Your task to perform on an android device: snooze an email in the gmail app Image 0: 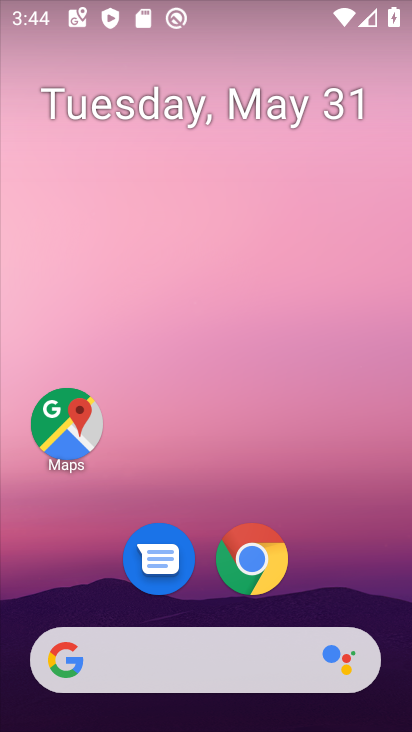
Step 0: drag from (223, 488) to (215, 121)
Your task to perform on an android device: snooze an email in the gmail app Image 1: 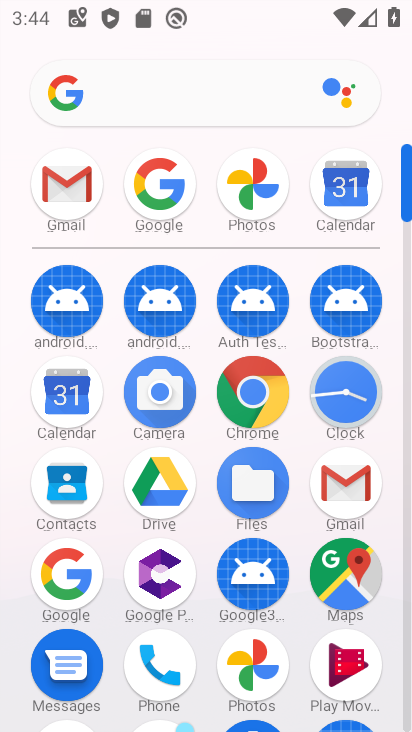
Step 1: click (350, 475)
Your task to perform on an android device: snooze an email in the gmail app Image 2: 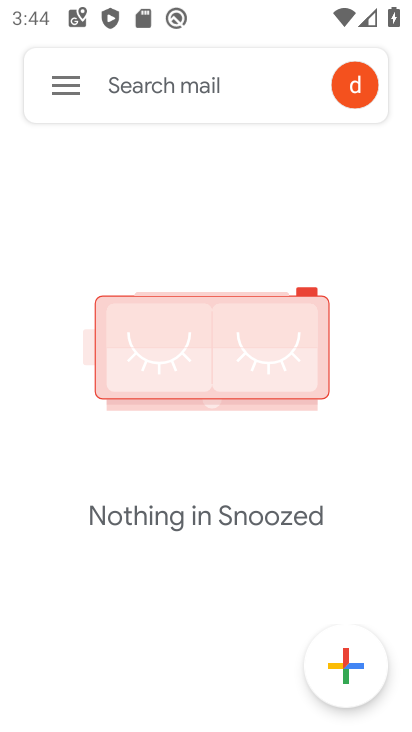
Step 2: click (58, 82)
Your task to perform on an android device: snooze an email in the gmail app Image 3: 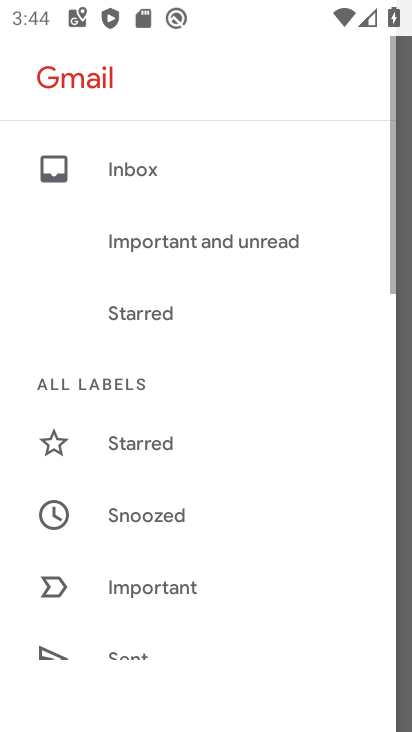
Step 3: click (124, 162)
Your task to perform on an android device: snooze an email in the gmail app Image 4: 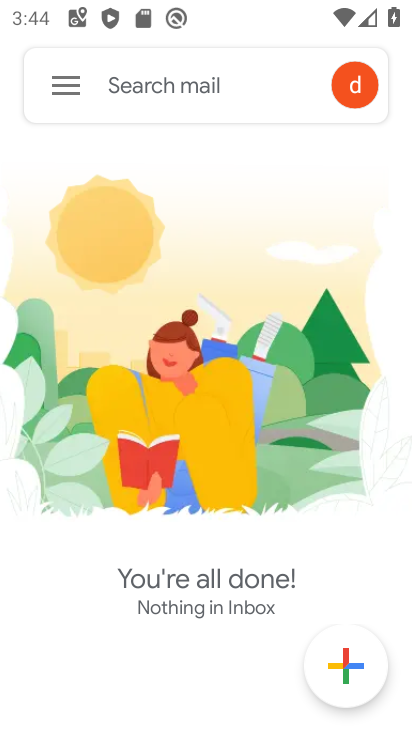
Step 4: task complete